Your task to perform on an android device: turn notification dots on Image 0: 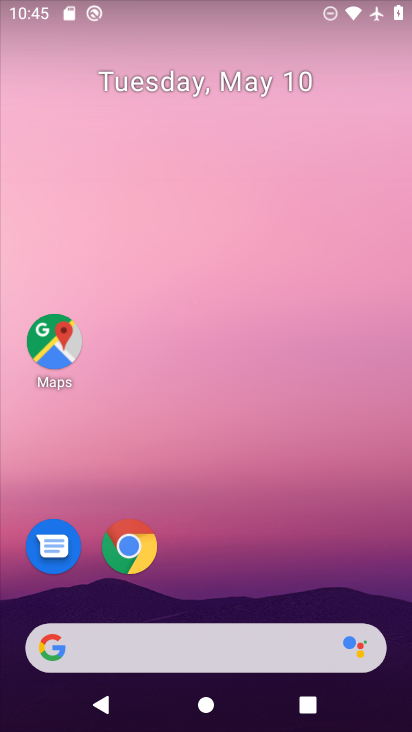
Step 0: drag from (310, 549) to (298, 54)
Your task to perform on an android device: turn notification dots on Image 1: 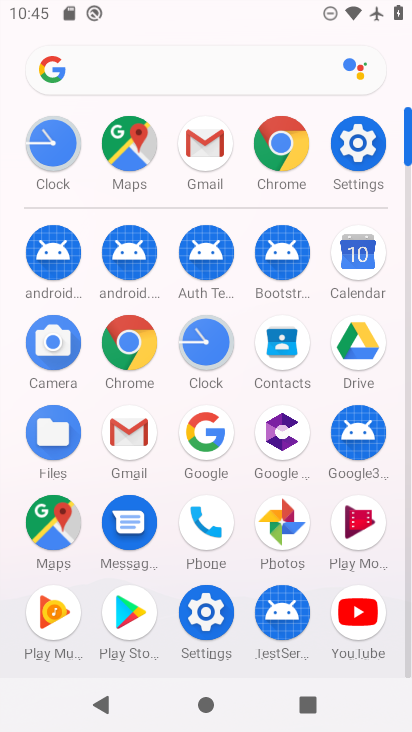
Step 1: click (359, 151)
Your task to perform on an android device: turn notification dots on Image 2: 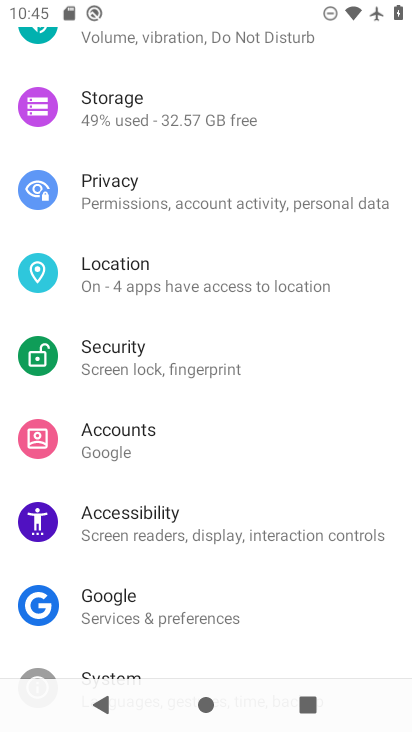
Step 2: drag from (209, 634) to (259, 177)
Your task to perform on an android device: turn notification dots on Image 3: 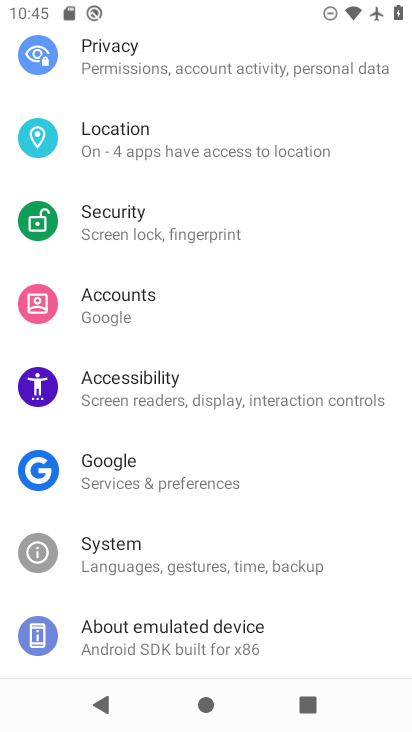
Step 3: drag from (253, 175) to (210, 714)
Your task to perform on an android device: turn notification dots on Image 4: 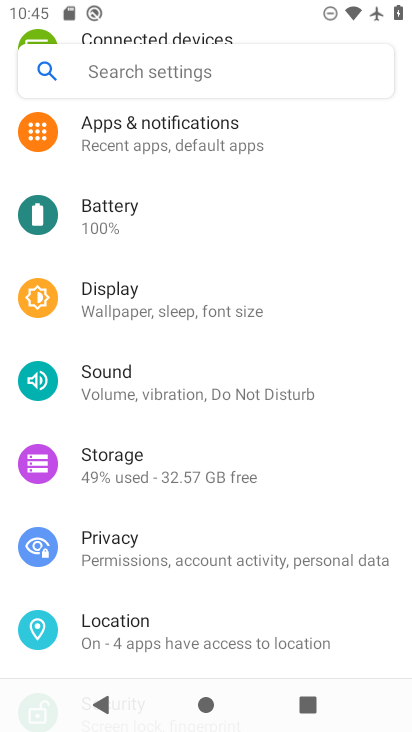
Step 4: drag from (270, 142) to (216, 560)
Your task to perform on an android device: turn notification dots on Image 5: 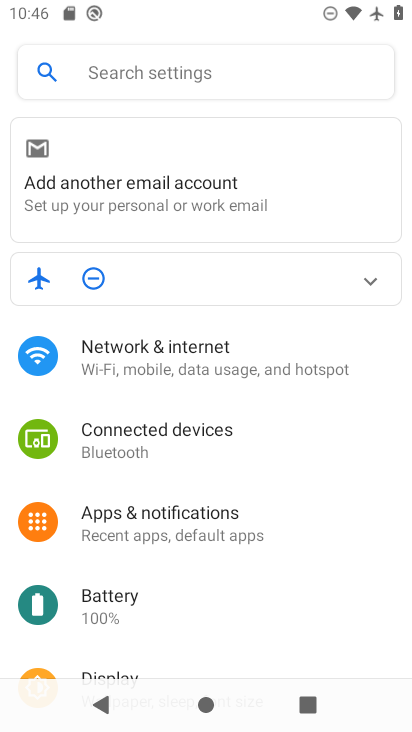
Step 5: click (172, 532)
Your task to perform on an android device: turn notification dots on Image 6: 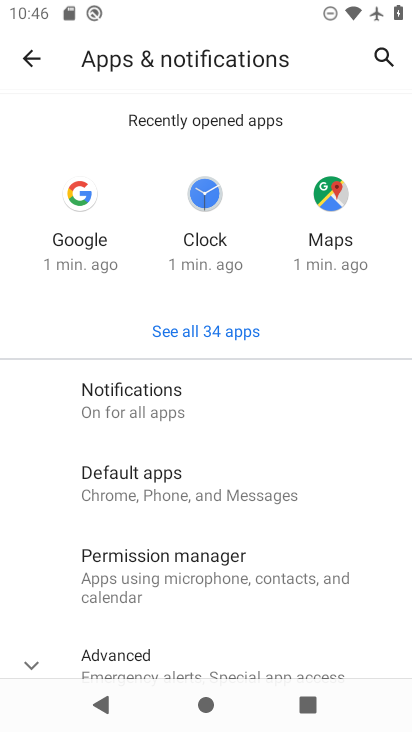
Step 6: drag from (221, 629) to (243, 381)
Your task to perform on an android device: turn notification dots on Image 7: 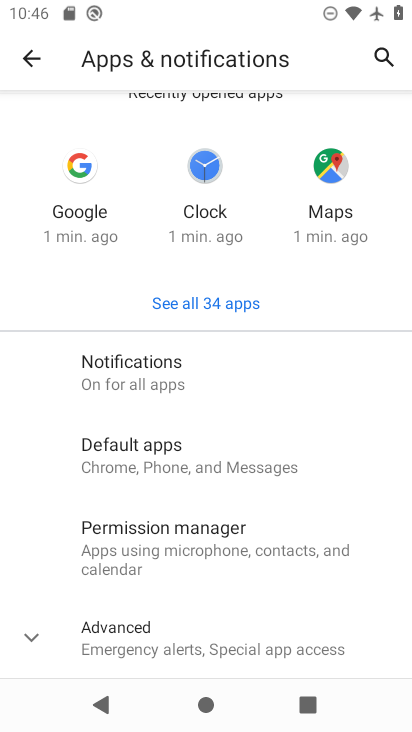
Step 7: click (141, 635)
Your task to perform on an android device: turn notification dots on Image 8: 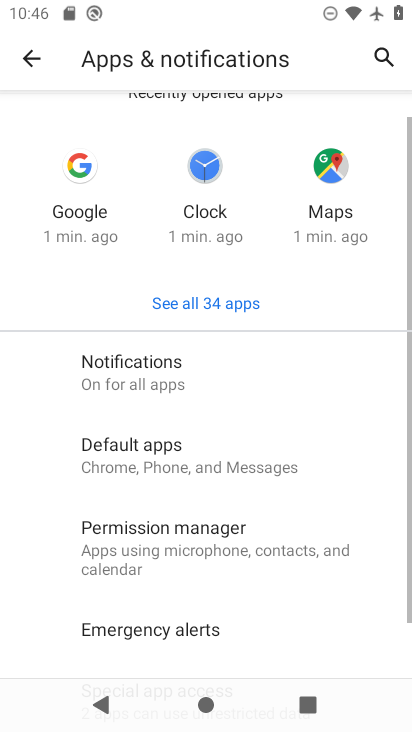
Step 8: drag from (261, 641) to (295, 252)
Your task to perform on an android device: turn notification dots on Image 9: 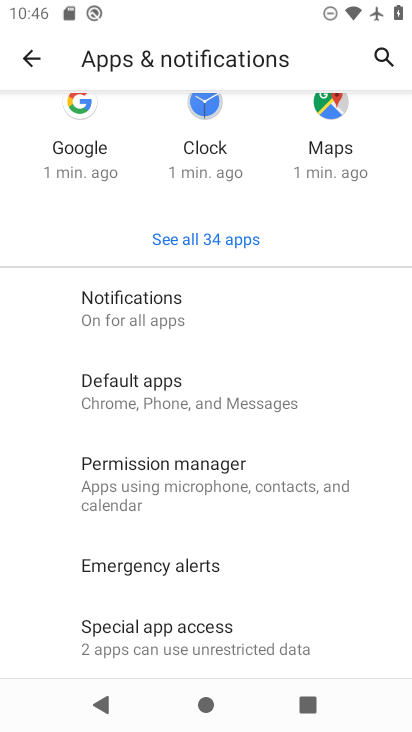
Step 9: drag from (200, 577) to (258, 299)
Your task to perform on an android device: turn notification dots on Image 10: 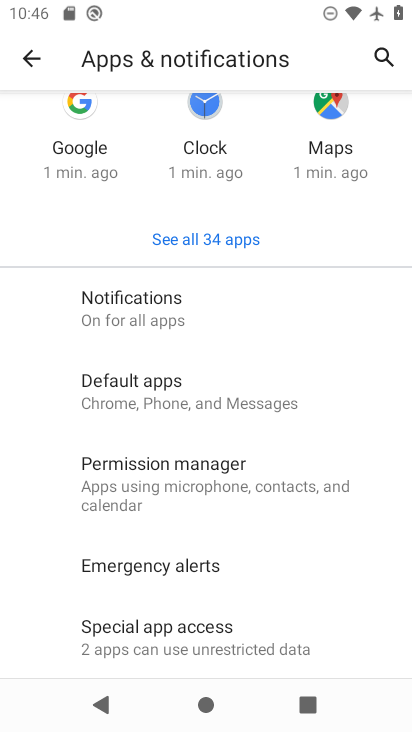
Step 10: click (159, 317)
Your task to perform on an android device: turn notification dots on Image 11: 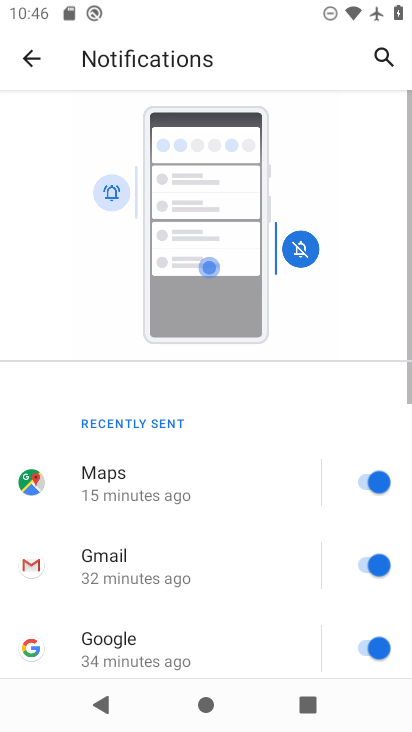
Step 11: drag from (256, 610) to (299, 151)
Your task to perform on an android device: turn notification dots on Image 12: 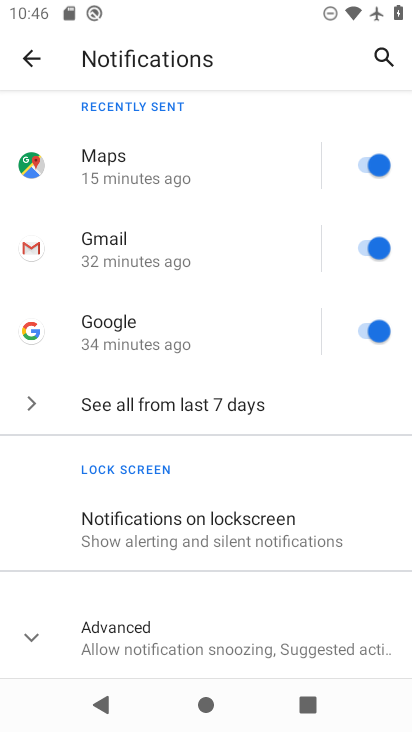
Step 12: click (195, 636)
Your task to perform on an android device: turn notification dots on Image 13: 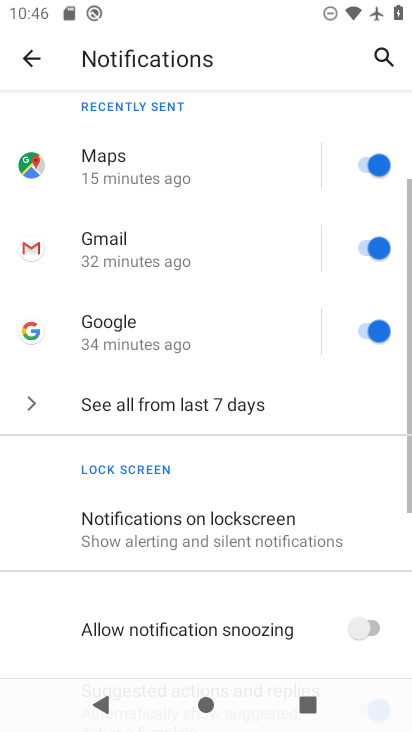
Step 13: task complete